Your task to perform on an android device: Empty the shopping cart on target. Add logitech g pro to the cart on target, then select checkout. Image 0: 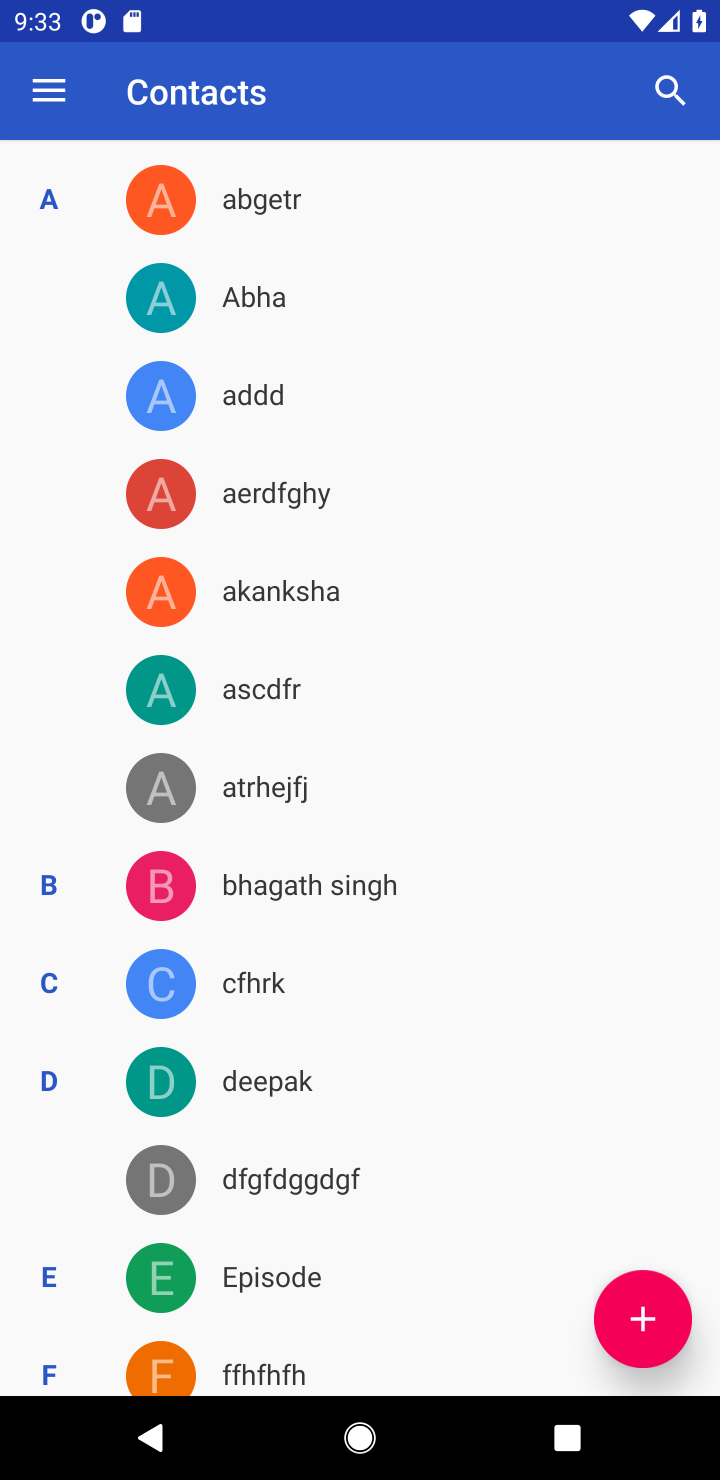
Step 0: press home button
Your task to perform on an android device: Empty the shopping cart on target. Add logitech g pro to the cart on target, then select checkout. Image 1: 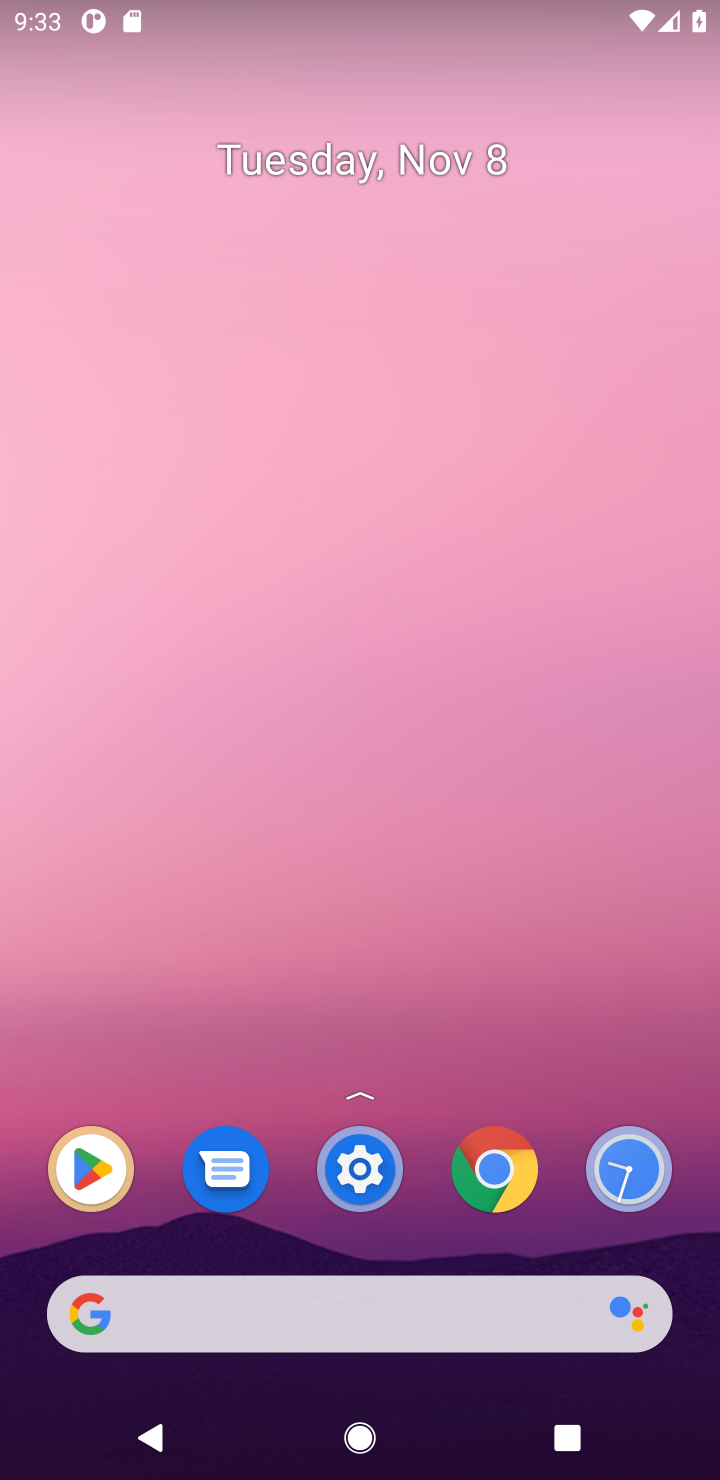
Step 1: click (496, 1179)
Your task to perform on an android device: Empty the shopping cart on target. Add logitech g pro to the cart on target, then select checkout. Image 2: 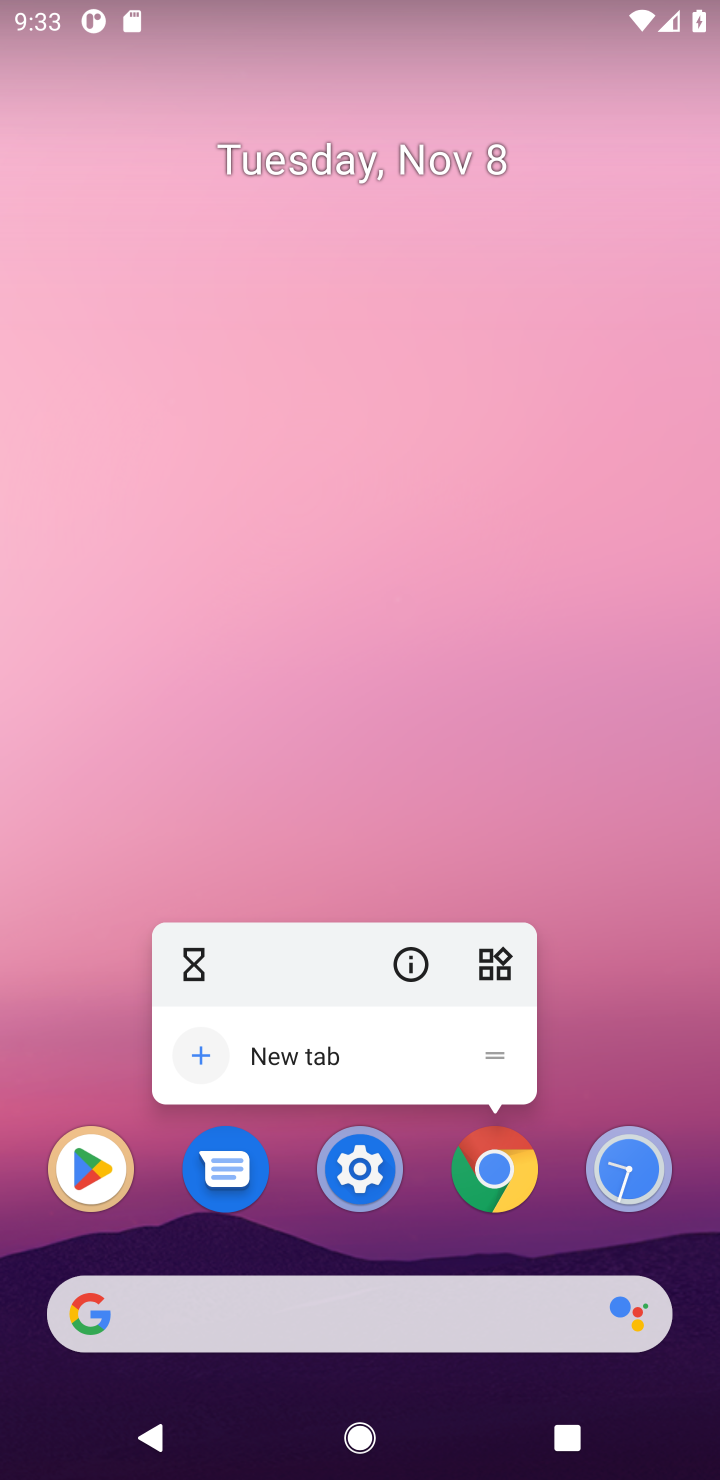
Step 2: click (496, 1179)
Your task to perform on an android device: Empty the shopping cart on target. Add logitech g pro to the cart on target, then select checkout. Image 3: 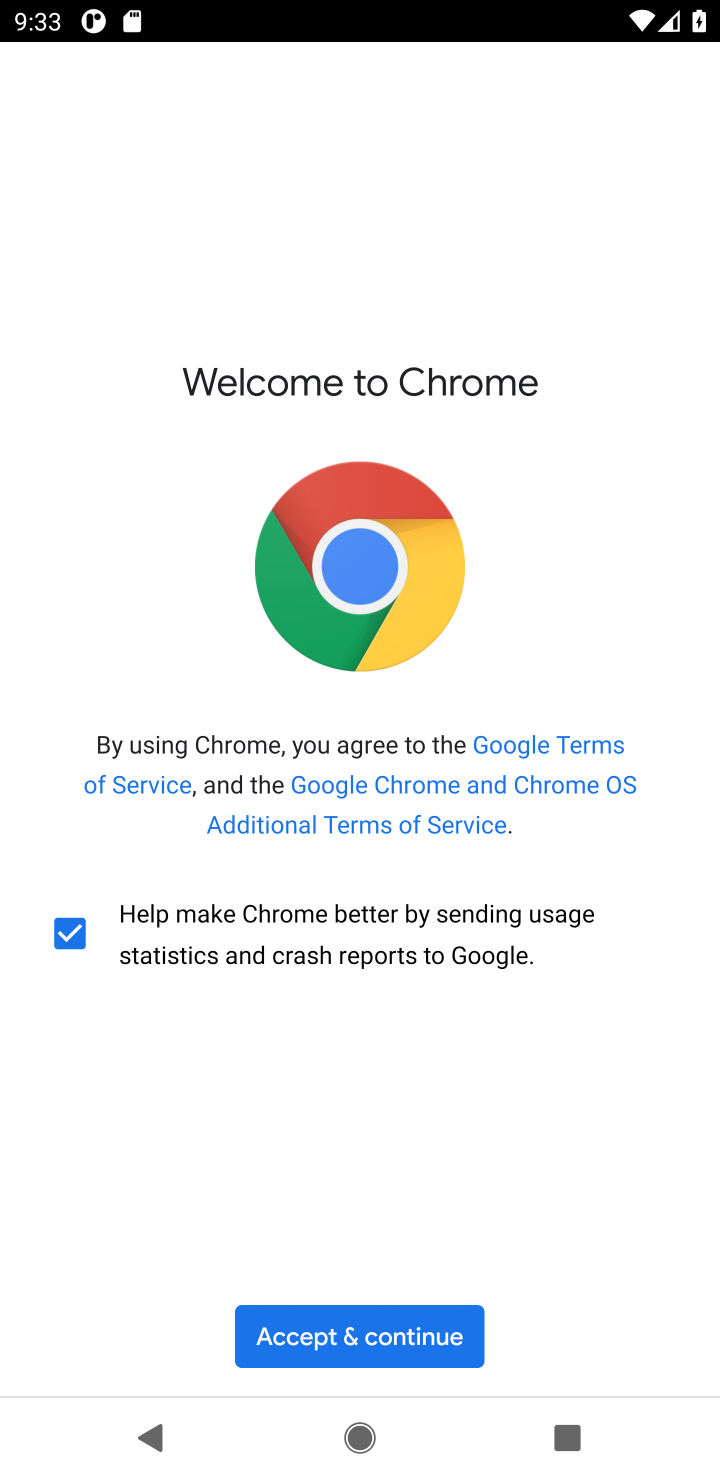
Step 3: click (379, 1321)
Your task to perform on an android device: Empty the shopping cart on target. Add logitech g pro to the cart on target, then select checkout. Image 4: 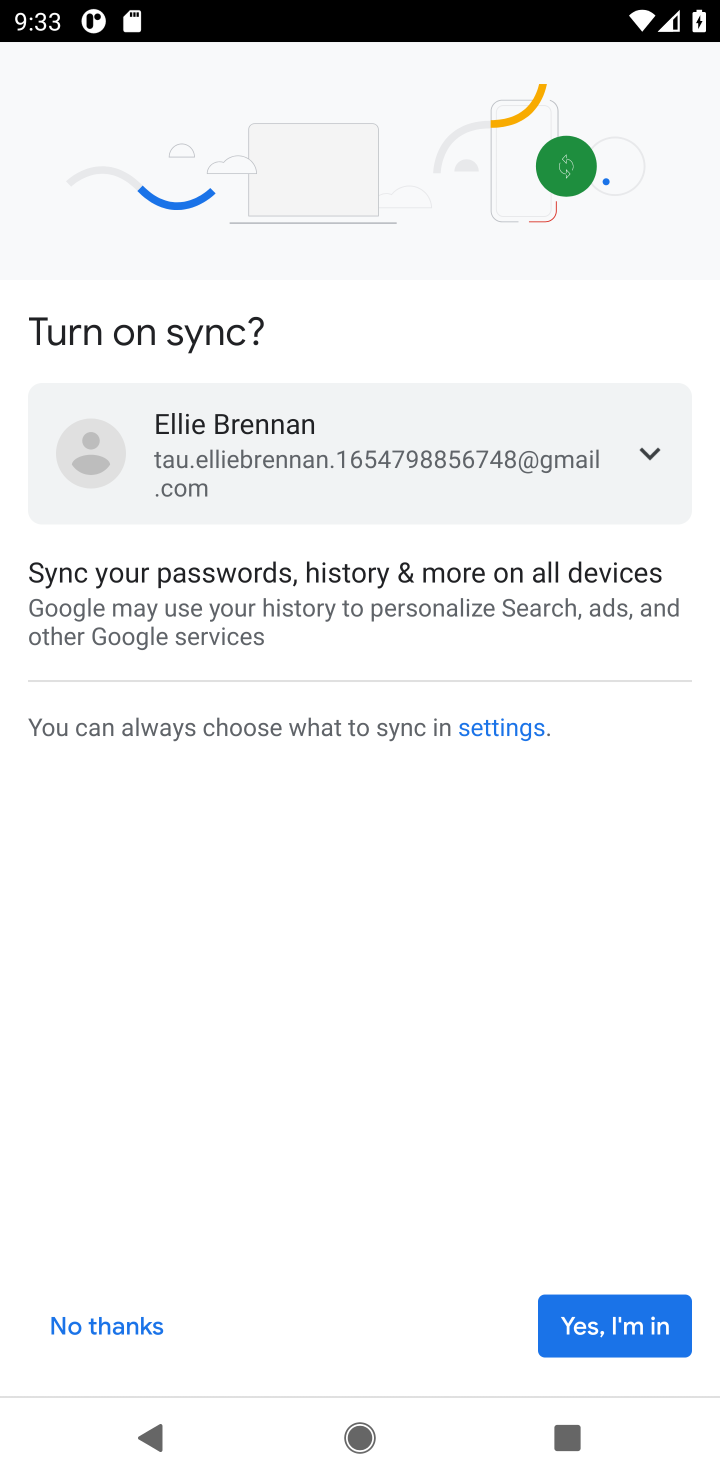
Step 4: click (624, 1325)
Your task to perform on an android device: Empty the shopping cart on target. Add logitech g pro to the cart on target, then select checkout. Image 5: 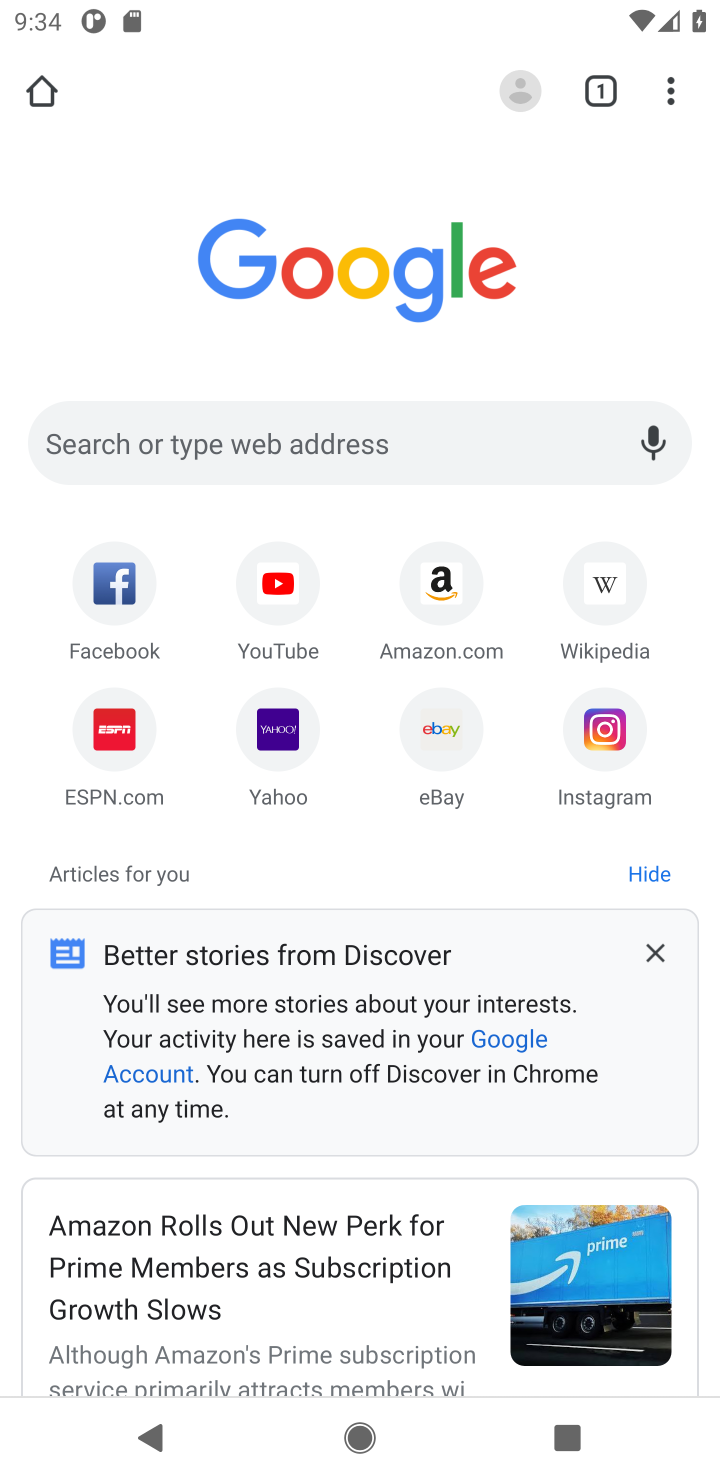
Step 5: click (420, 465)
Your task to perform on an android device: Empty the shopping cart on target. Add logitech g pro to the cart on target, then select checkout. Image 6: 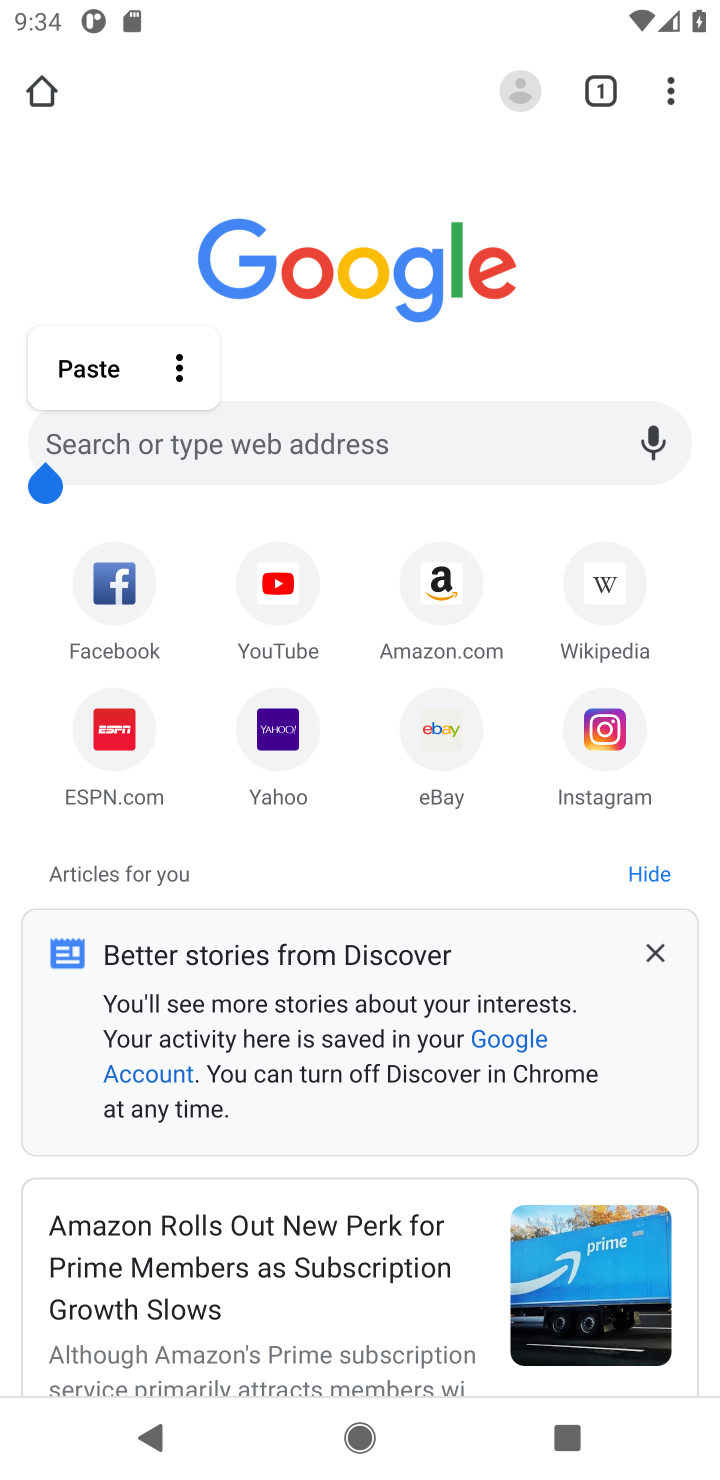
Step 6: press enter
Your task to perform on an android device: Empty the shopping cart on target. Add logitech g pro to the cart on target, then select checkout. Image 7: 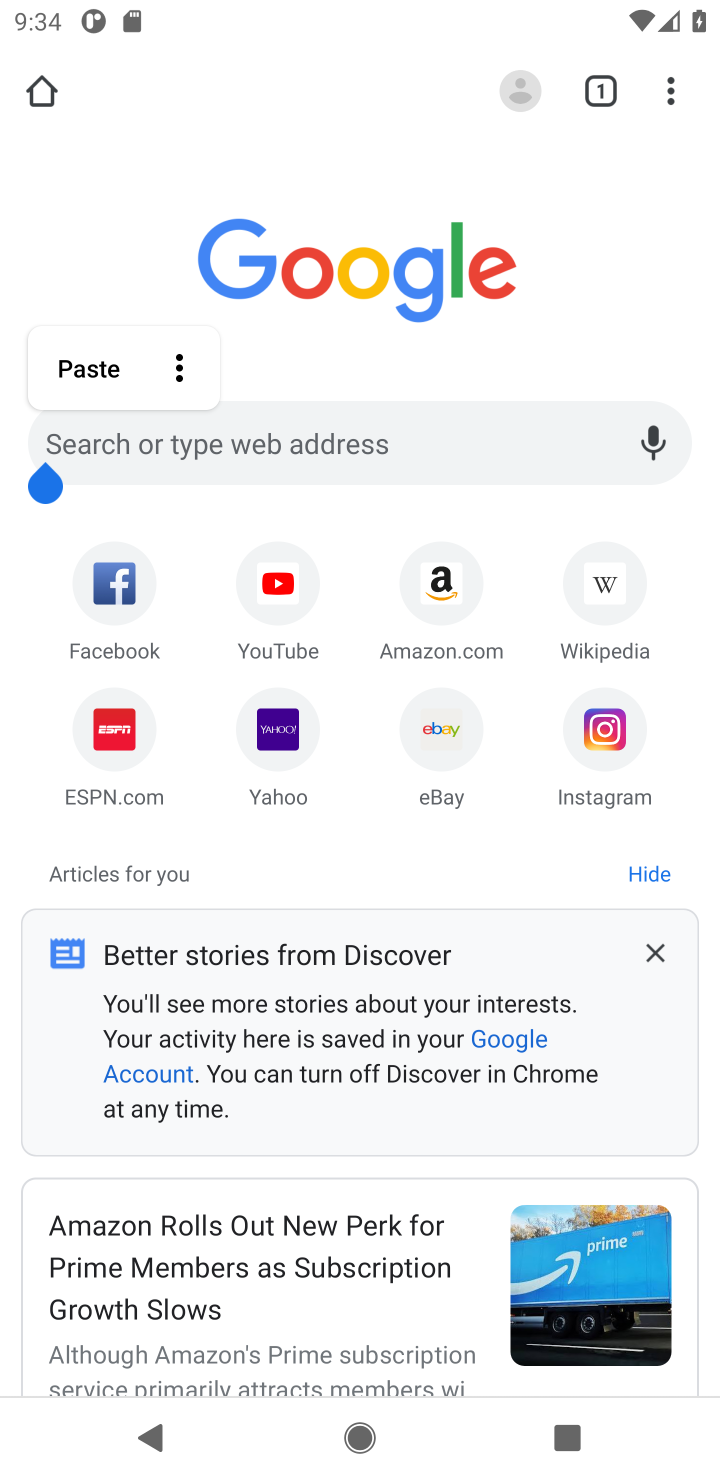
Step 7: type "target"
Your task to perform on an android device: Empty the shopping cart on target. Add logitech g pro to the cart on target, then select checkout. Image 8: 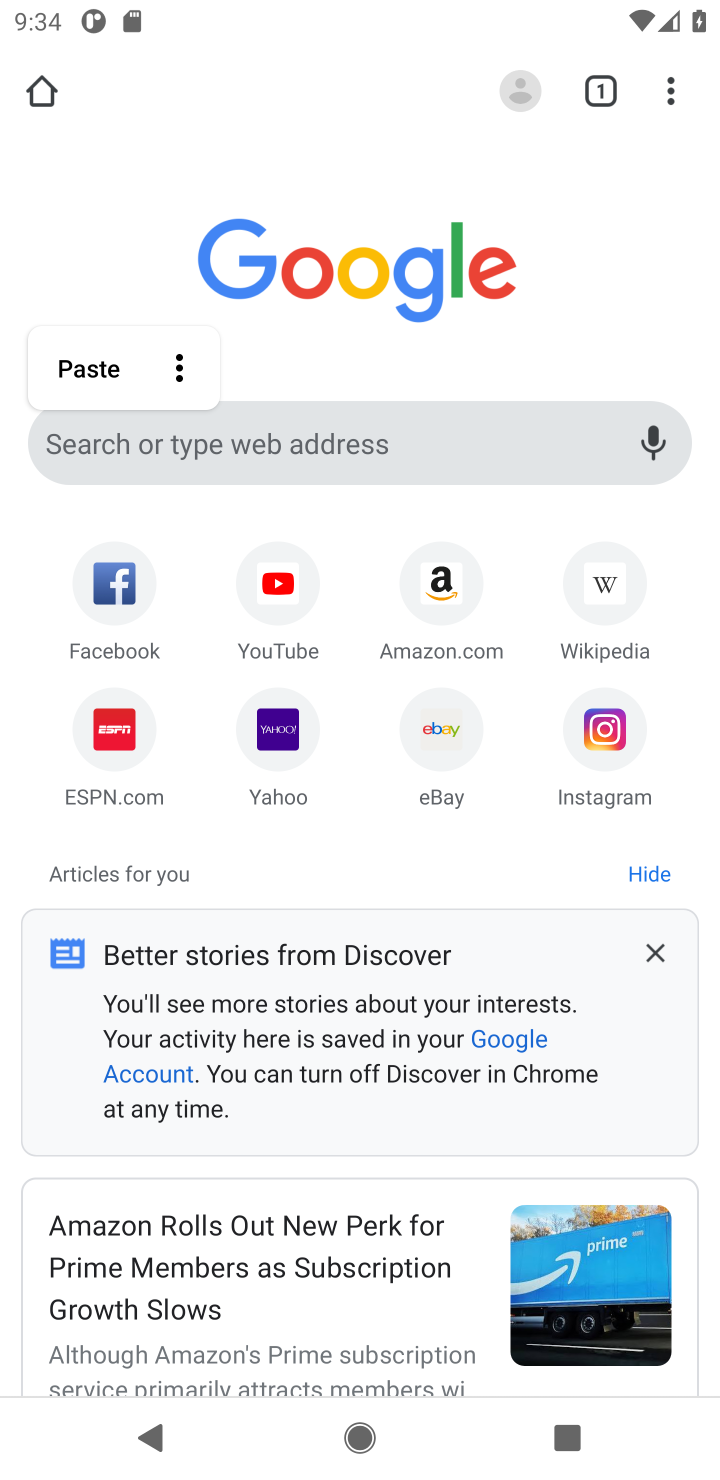
Step 8: click (397, 431)
Your task to perform on an android device: Empty the shopping cart on target. Add logitech g pro to the cart on target, then select checkout. Image 9: 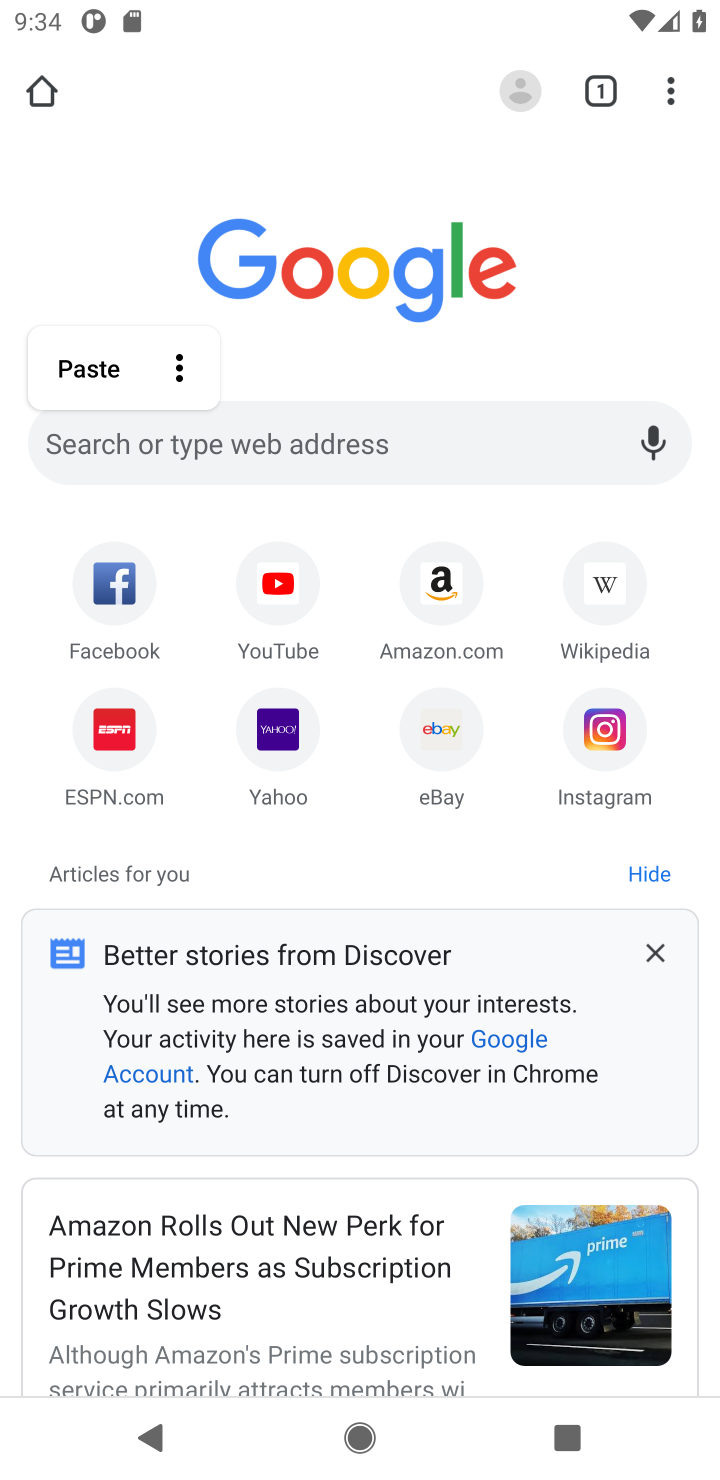
Step 9: click (397, 431)
Your task to perform on an android device: Empty the shopping cart on target. Add logitech g pro to the cart on target, then select checkout. Image 10: 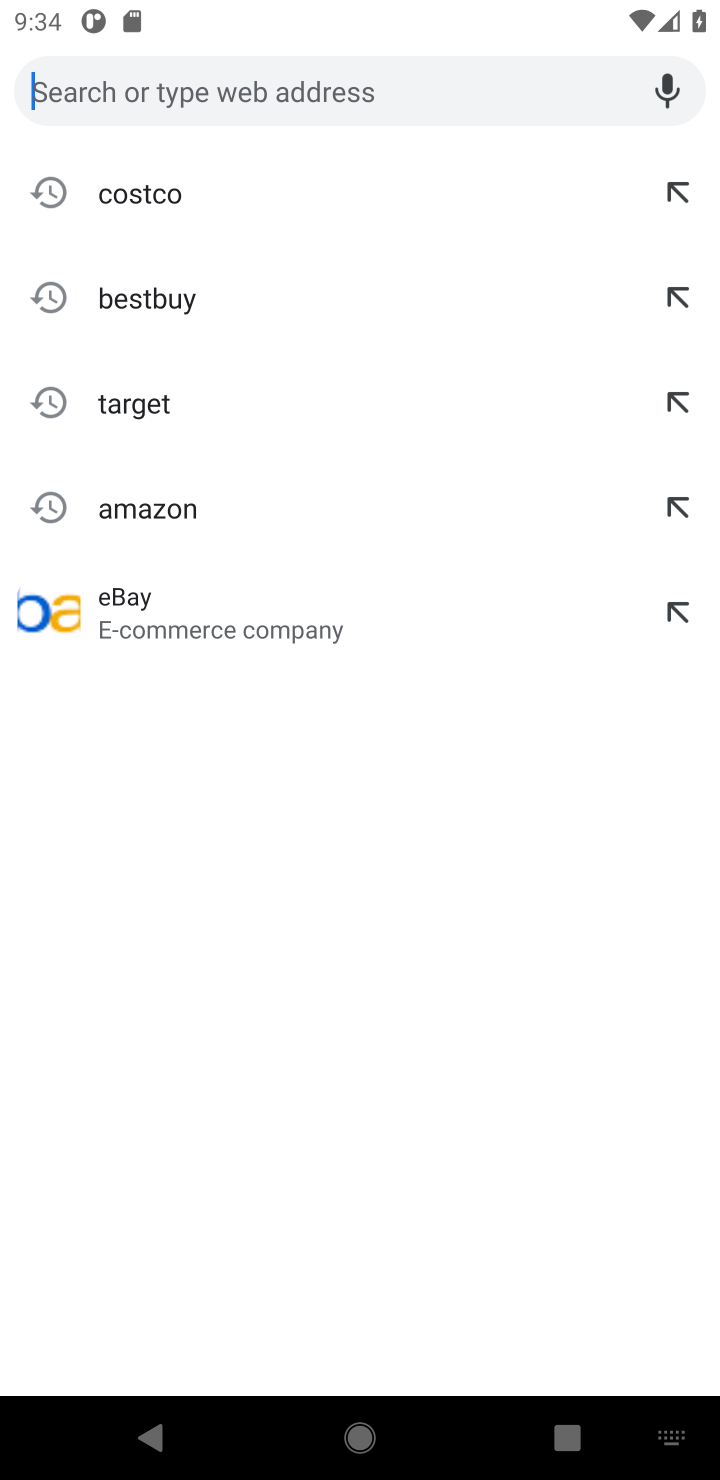
Step 10: press enter
Your task to perform on an android device: Empty the shopping cart on target. Add logitech g pro to the cart on target, then select checkout. Image 11: 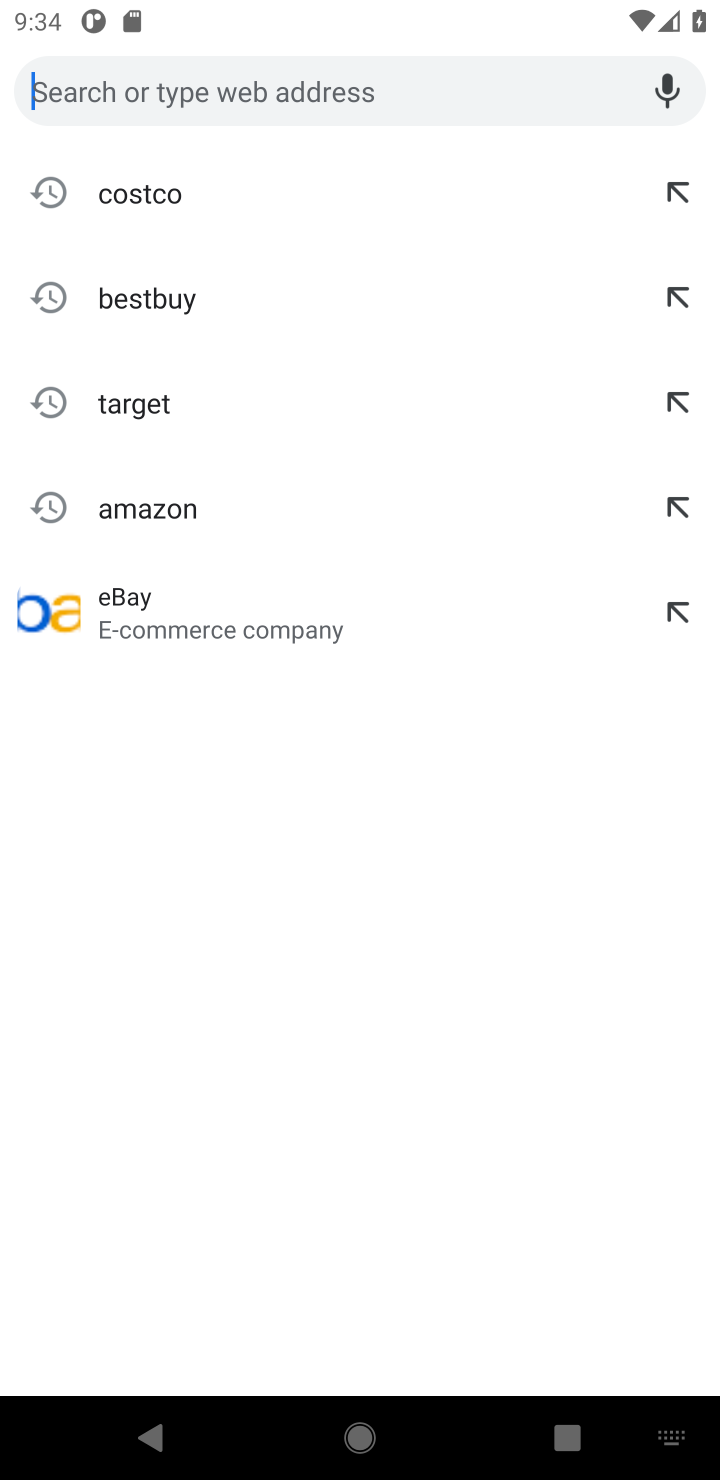
Step 11: type "target"
Your task to perform on an android device: Empty the shopping cart on target. Add logitech g pro to the cart on target, then select checkout. Image 12: 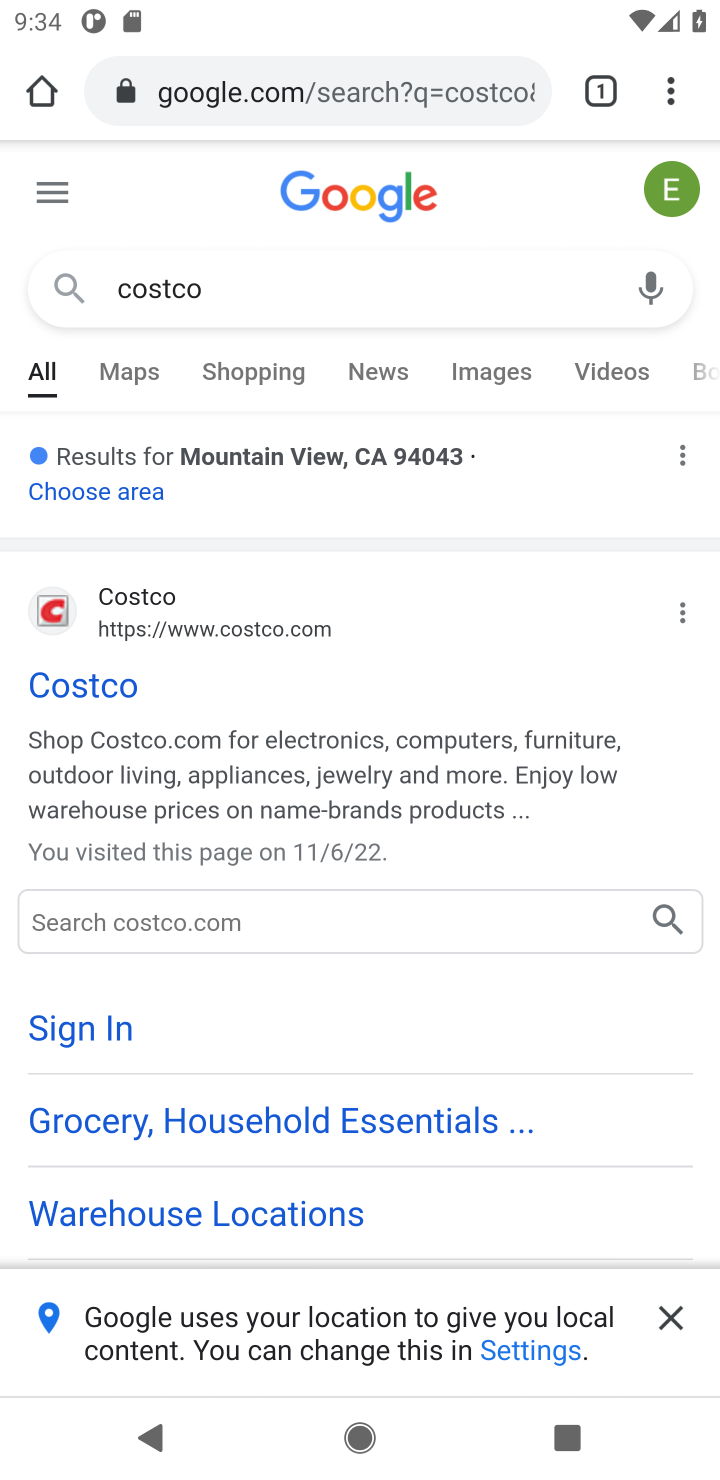
Step 12: click (284, 102)
Your task to perform on an android device: Empty the shopping cart on target. Add logitech g pro to the cart on target, then select checkout. Image 13: 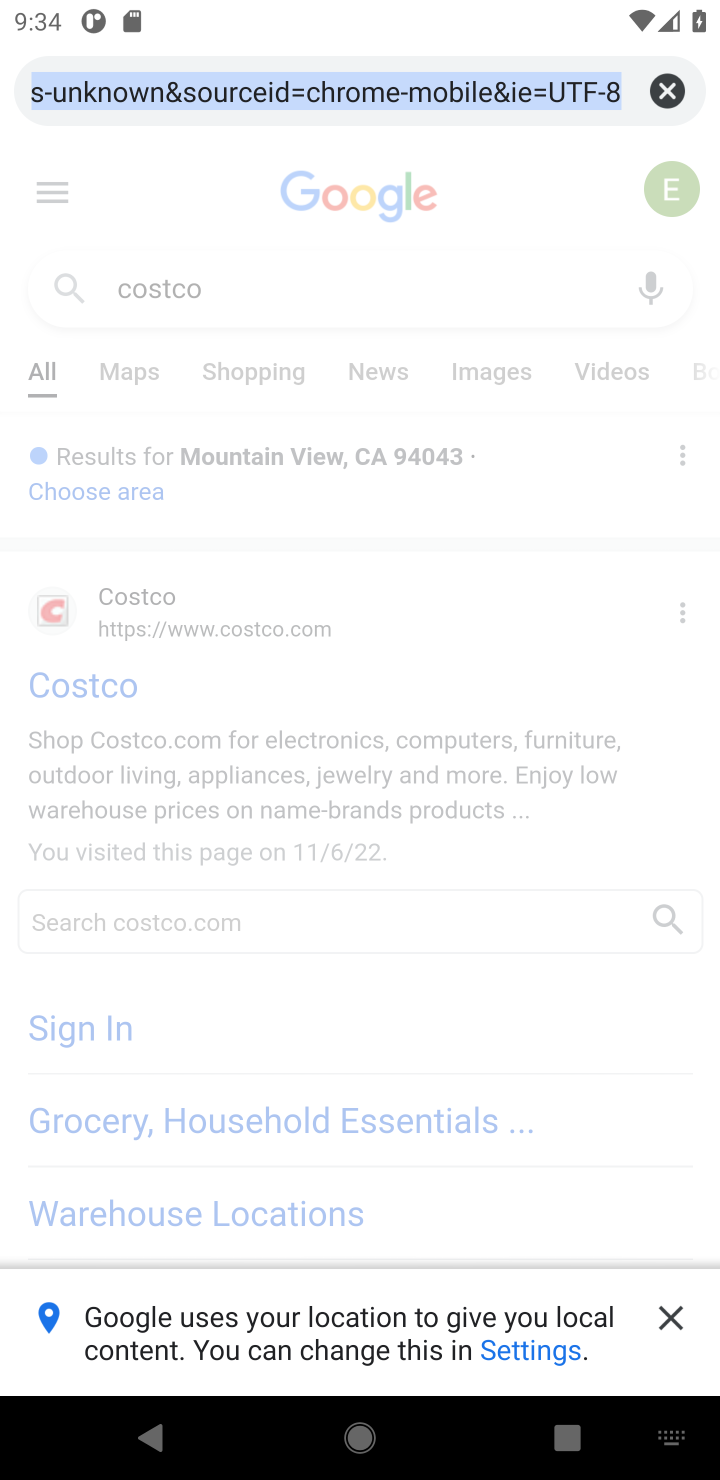
Step 13: click (682, 94)
Your task to perform on an android device: Empty the shopping cart on target. Add logitech g pro to the cart on target, then select checkout. Image 14: 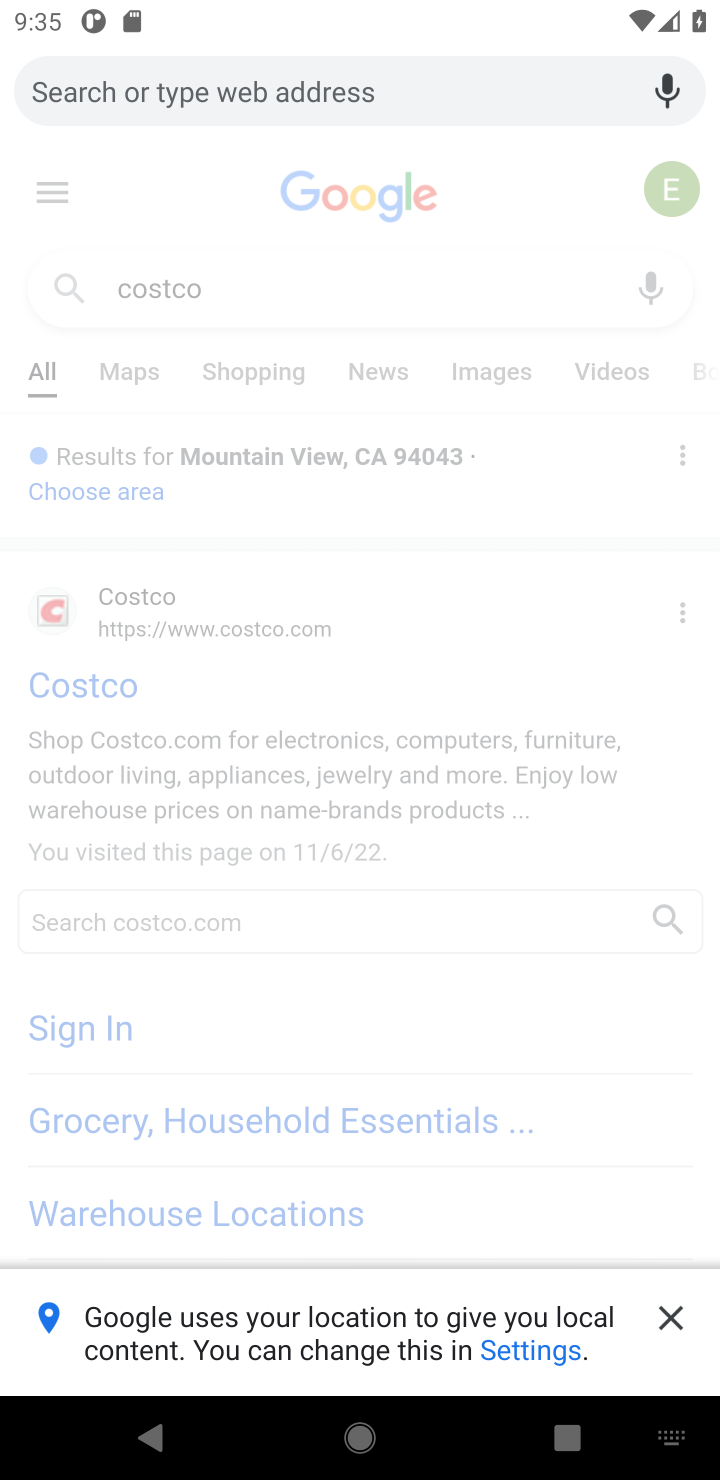
Step 14: press enter
Your task to perform on an android device: Empty the shopping cart on target. Add logitech g pro to the cart on target, then select checkout. Image 15: 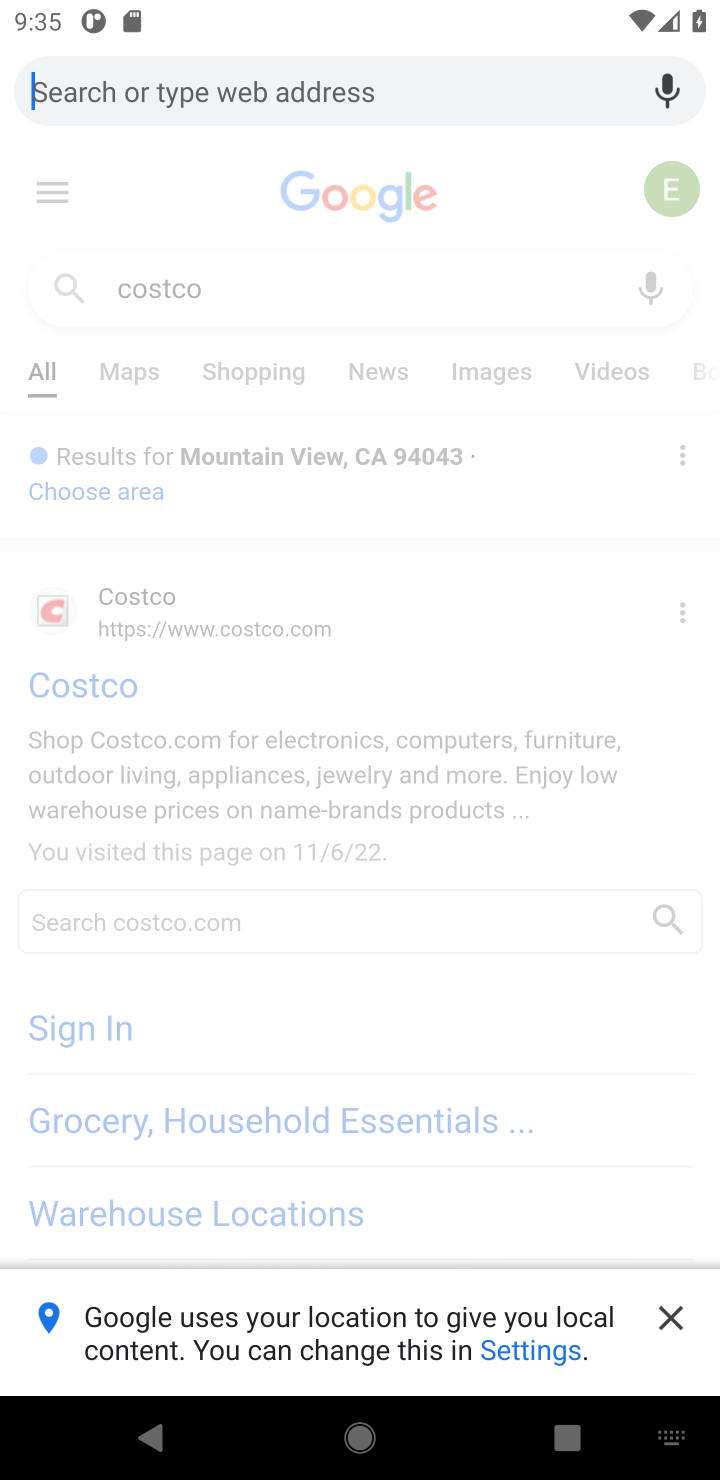
Step 15: type "target"
Your task to perform on an android device: Empty the shopping cart on target. Add logitech g pro to the cart on target, then select checkout. Image 16: 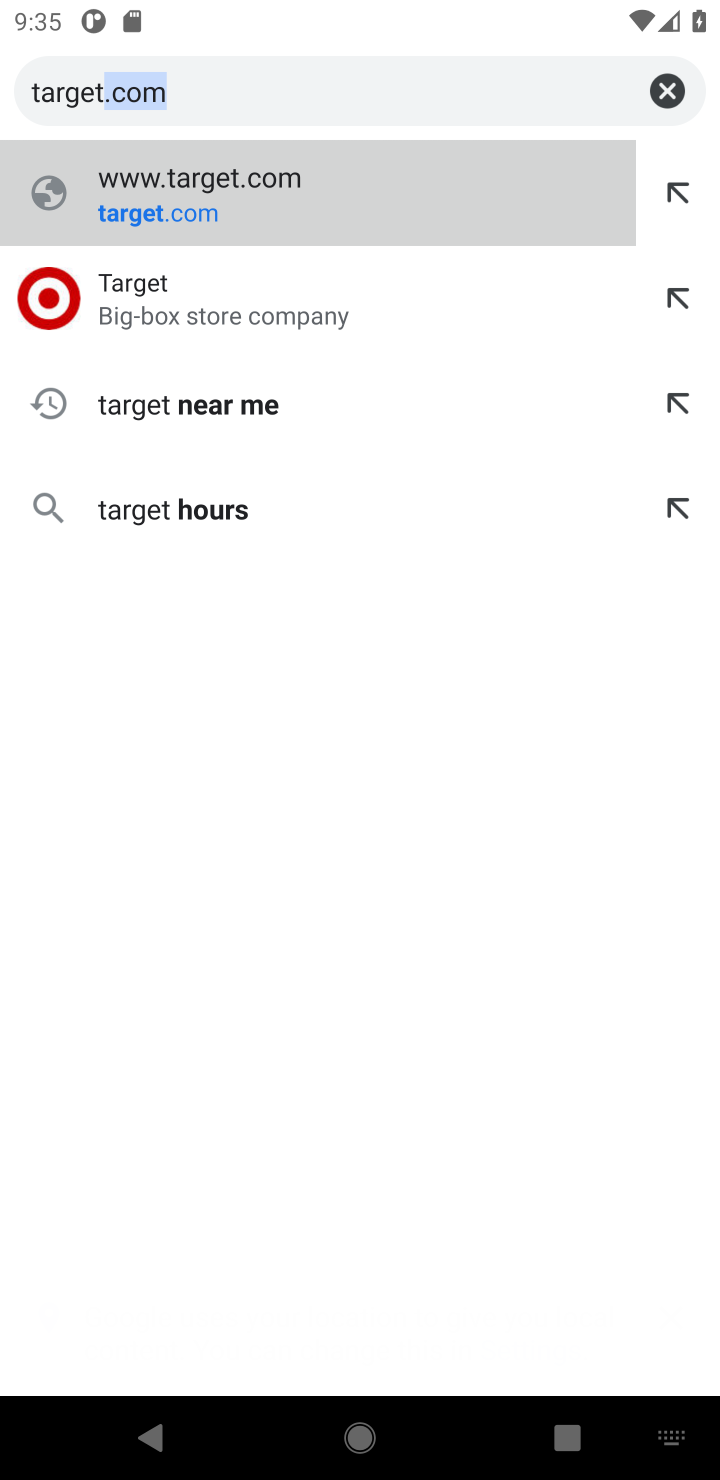
Step 16: click (481, 98)
Your task to perform on an android device: Empty the shopping cart on target. Add logitech g pro to the cart on target, then select checkout. Image 17: 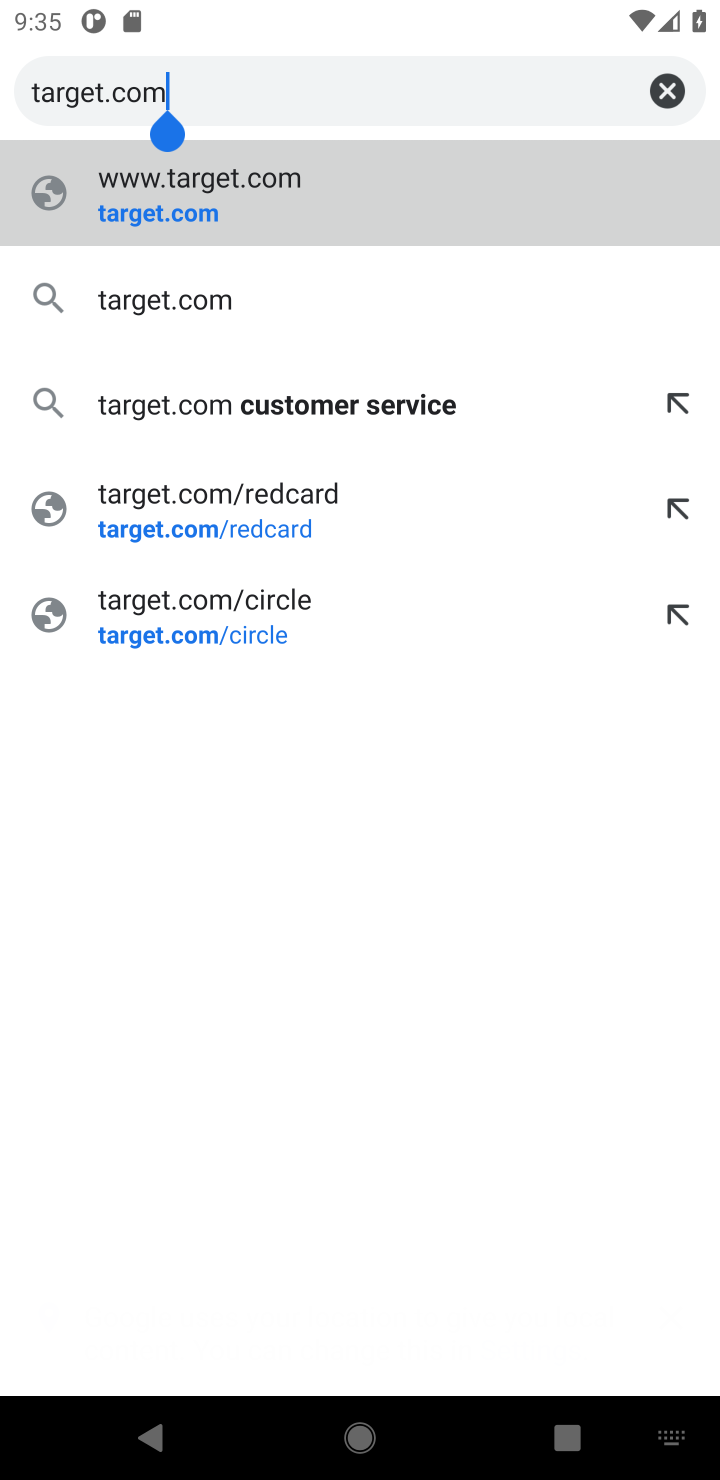
Step 17: click (183, 292)
Your task to perform on an android device: Empty the shopping cart on target. Add logitech g pro to the cart on target, then select checkout. Image 18: 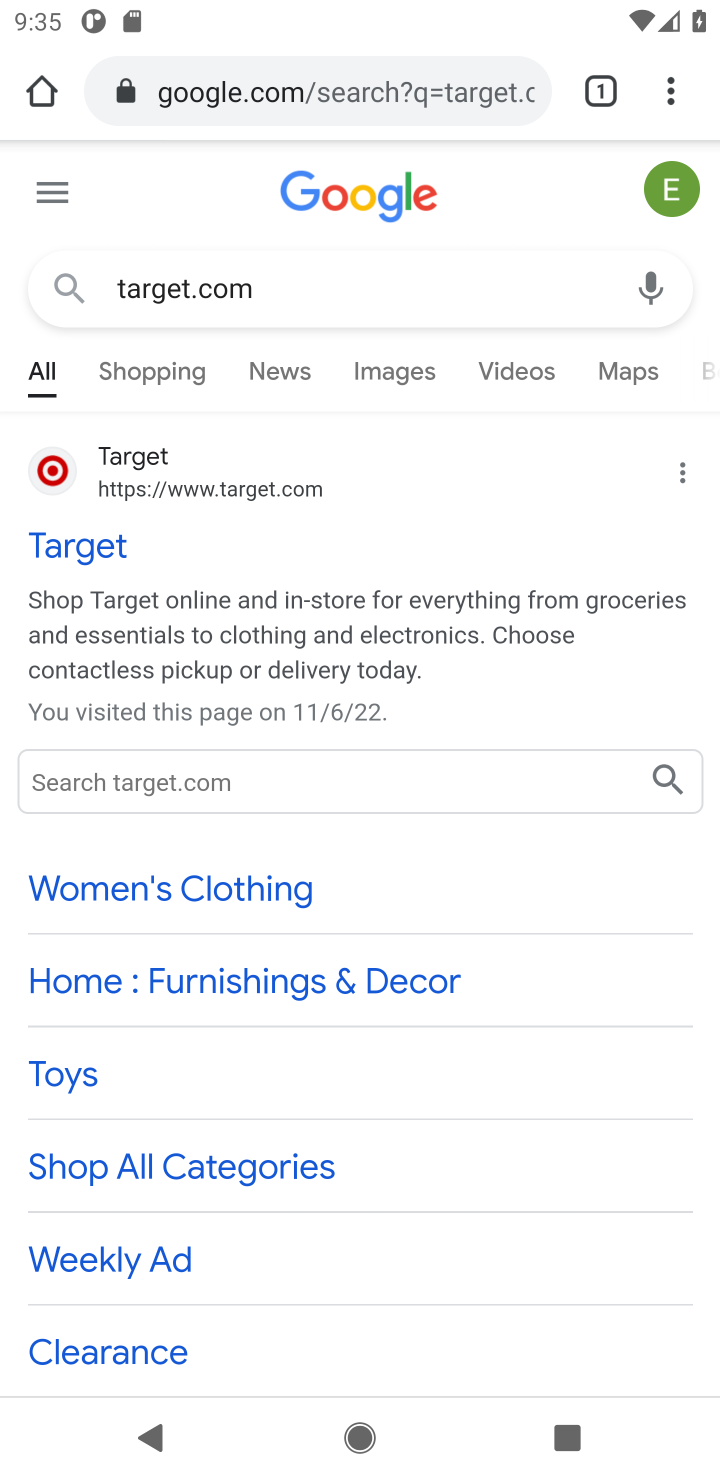
Step 18: click (234, 472)
Your task to perform on an android device: Empty the shopping cart on target. Add logitech g pro to the cart on target, then select checkout. Image 19: 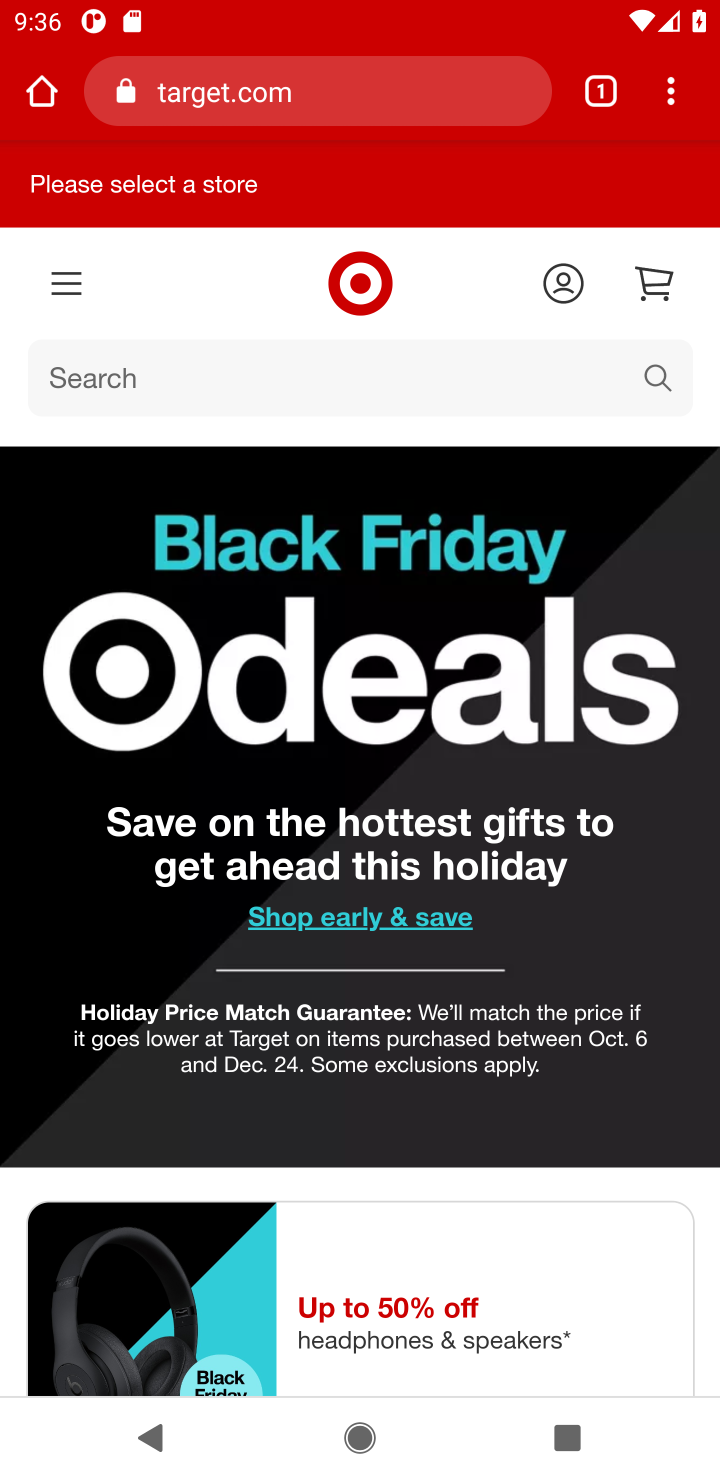
Step 19: click (649, 293)
Your task to perform on an android device: Empty the shopping cart on target. Add logitech g pro to the cart on target, then select checkout. Image 20: 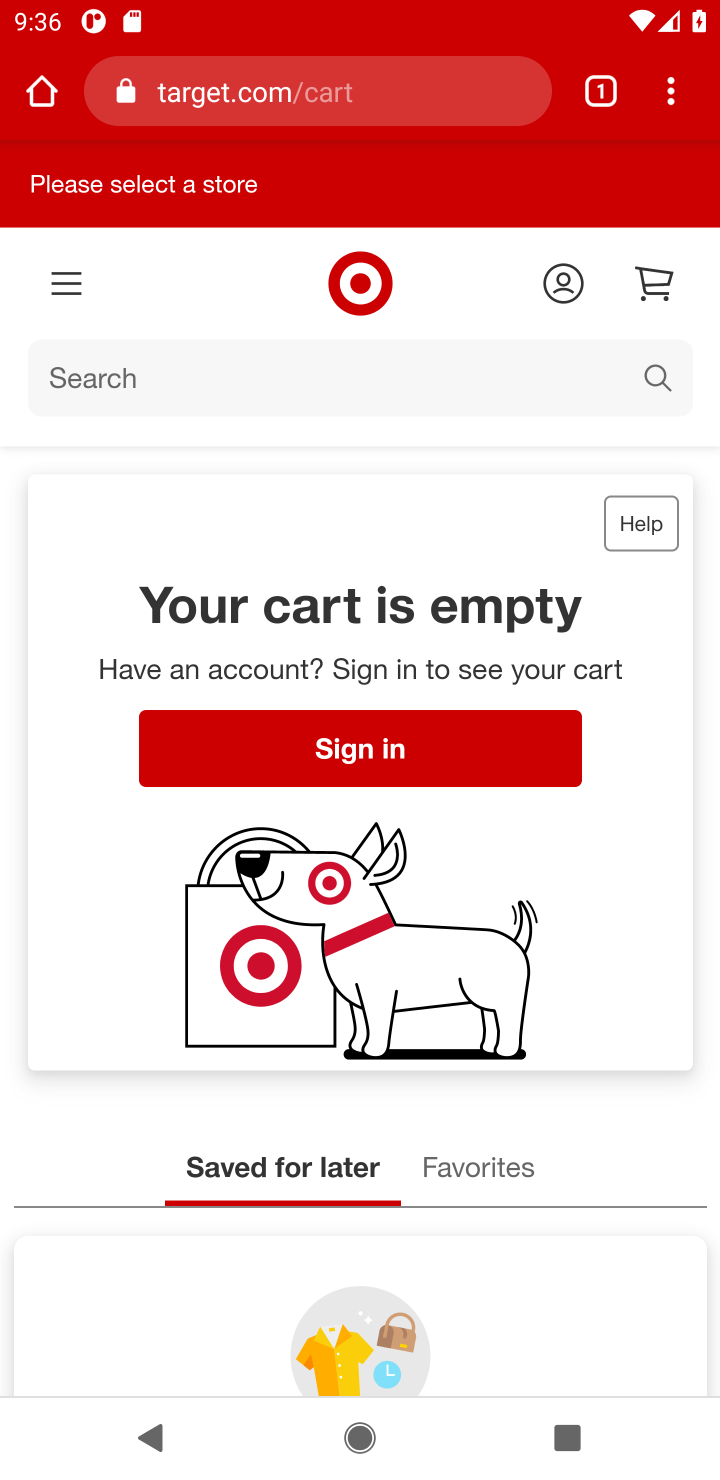
Step 20: click (643, 368)
Your task to perform on an android device: Empty the shopping cart on target. Add logitech g pro to the cart on target, then select checkout. Image 21: 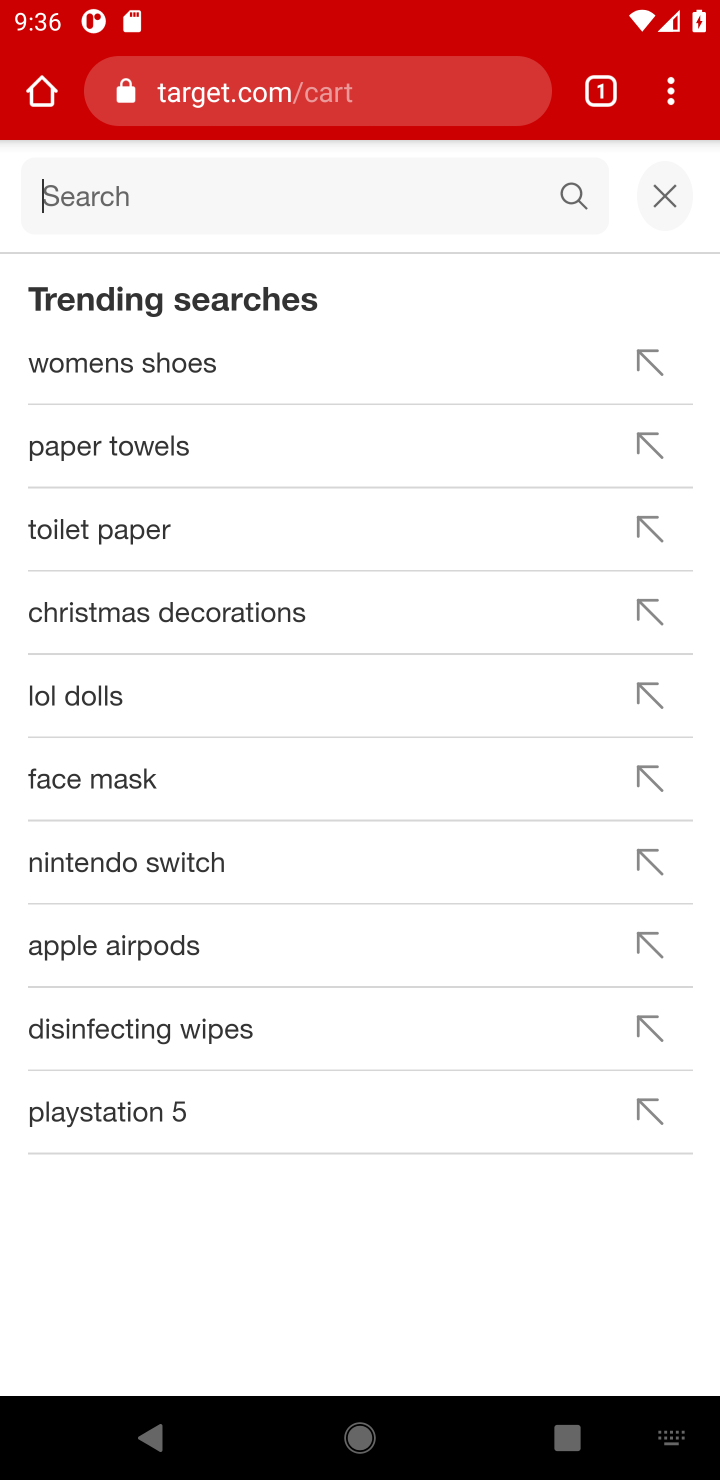
Step 21: type "logitech g pro"
Your task to perform on an android device: Empty the shopping cart on target. Add logitech g pro to the cart on target, then select checkout. Image 22: 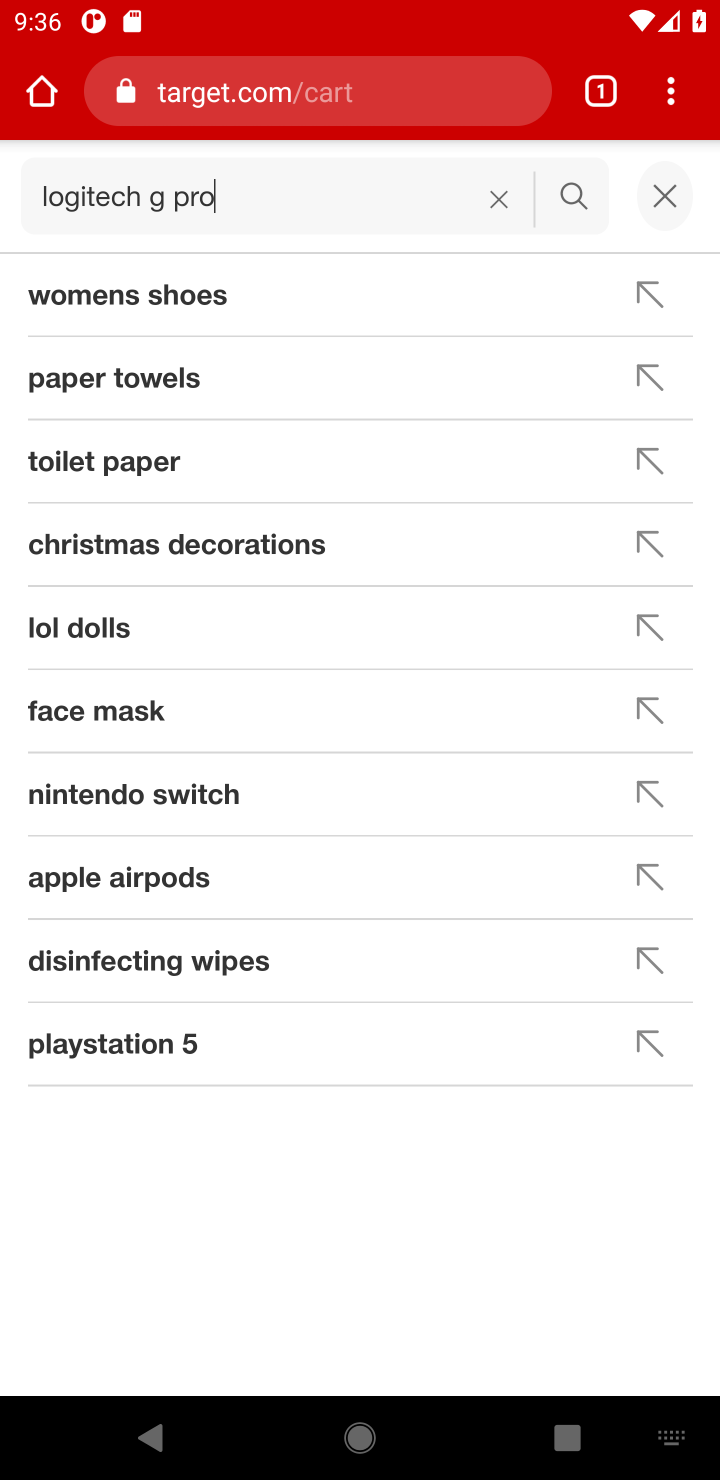
Step 22: press enter
Your task to perform on an android device: Empty the shopping cart on target. Add logitech g pro to the cart on target, then select checkout. Image 23: 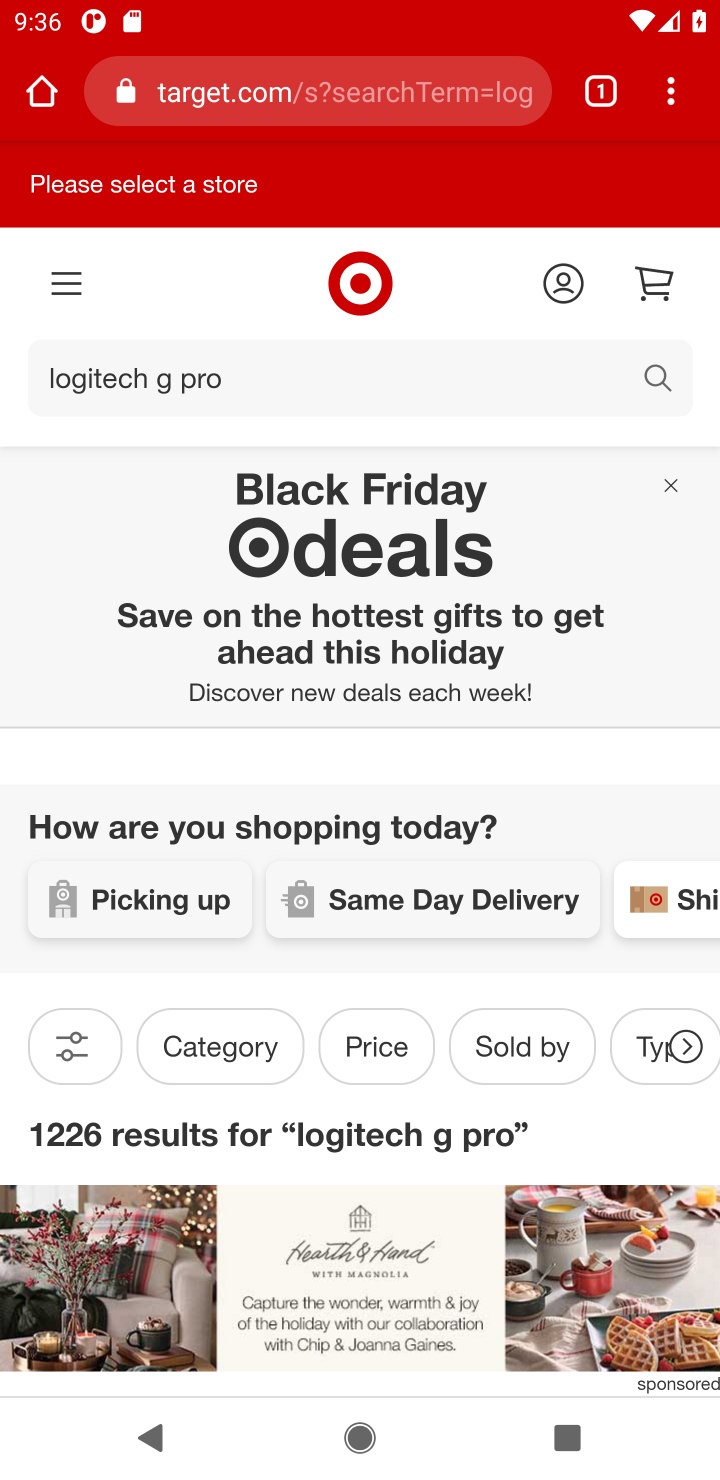
Step 23: task complete